Your task to perform on an android device: search for starred emails in the gmail app Image 0: 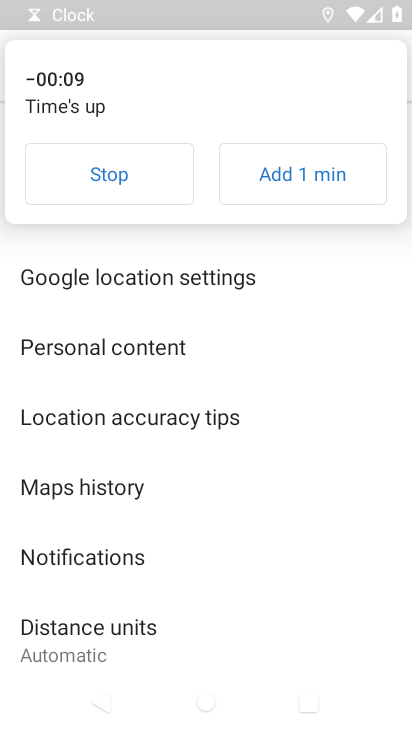
Step 0: click (111, 199)
Your task to perform on an android device: search for starred emails in the gmail app Image 1: 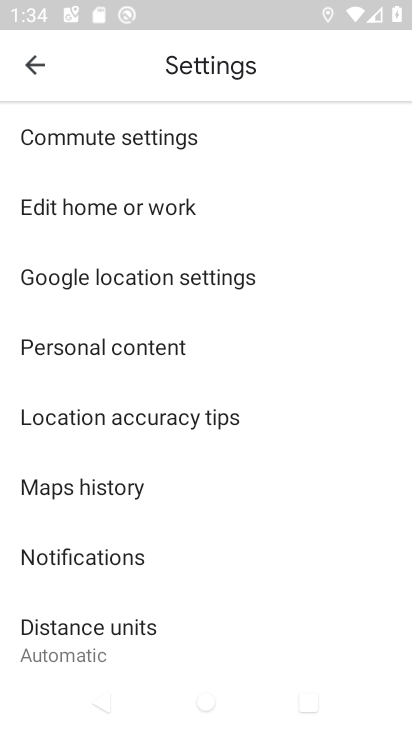
Step 1: press home button
Your task to perform on an android device: search for starred emails in the gmail app Image 2: 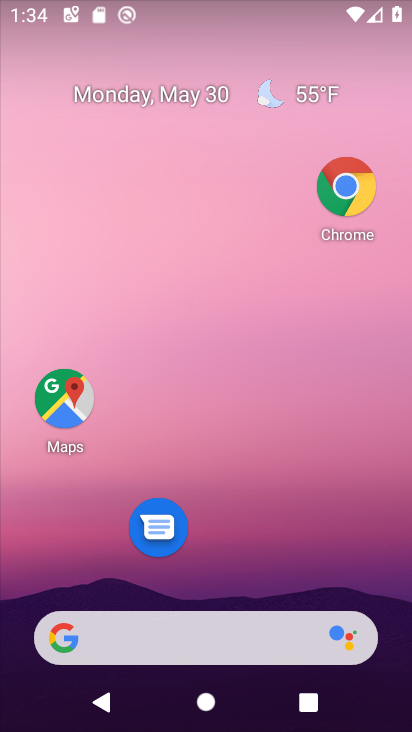
Step 2: drag from (200, 557) to (214, 9)
Your task to perform on an android device: search for starred emails in the gmail app Image 3: 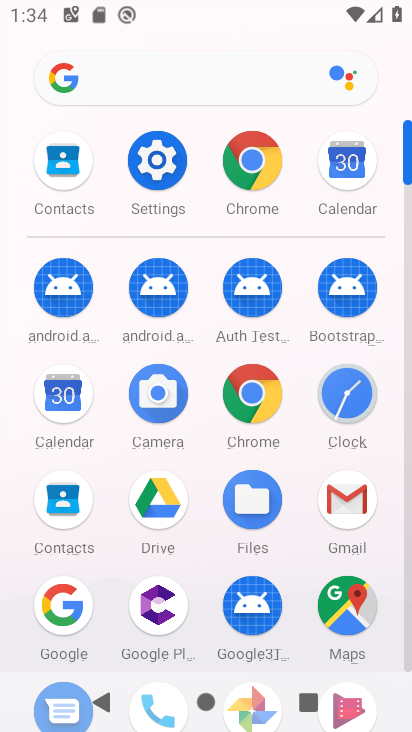
Step 3: click (343, 495)
Your task to perform on an android device: search for starred emails in the gmail app Image 4: 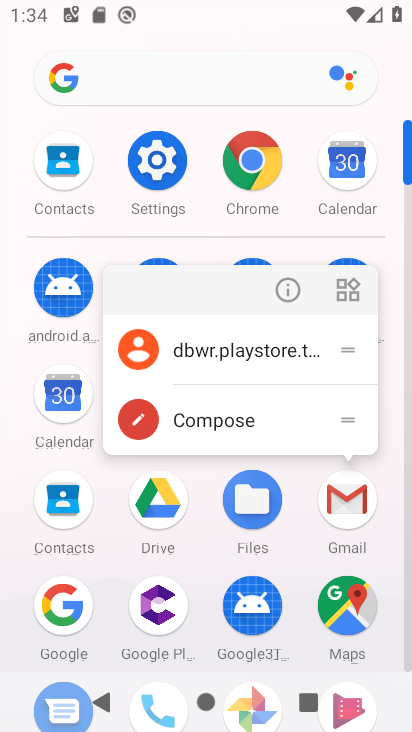
Step 4: click (286, 298)
Your task to perform on an android device: search for starred emails in the gmail app Image 5: 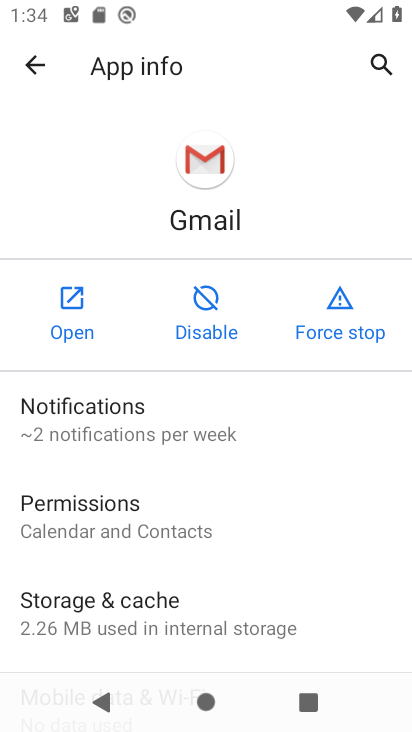
Step 5: click (86, 311)
Your task to perform on an android device: search for starred emails in the gmail app Image 6: 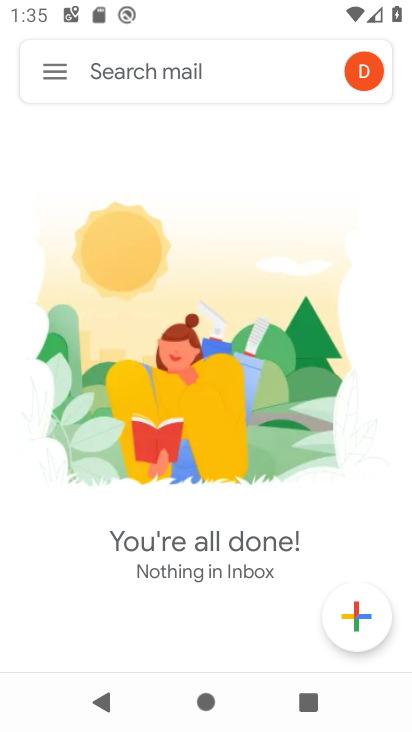
Step 6: click (48, 69)
Your task to perform on an android device: search for starred emails in the gmail app Image 7: 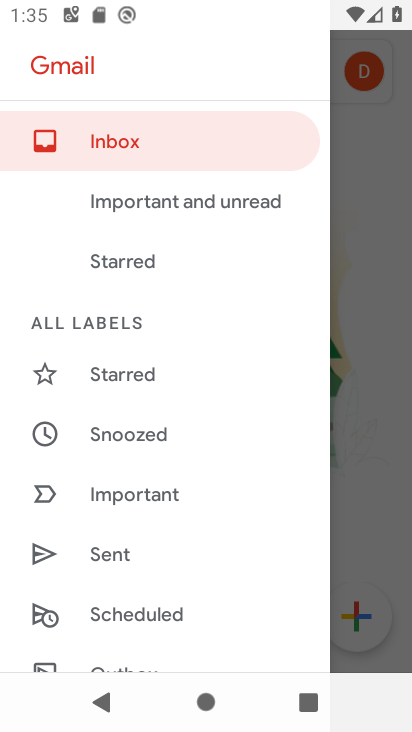
Step 7: click (139, 359)
Your task to perform on an android device: search for starred emails in the gmail app Image 8: 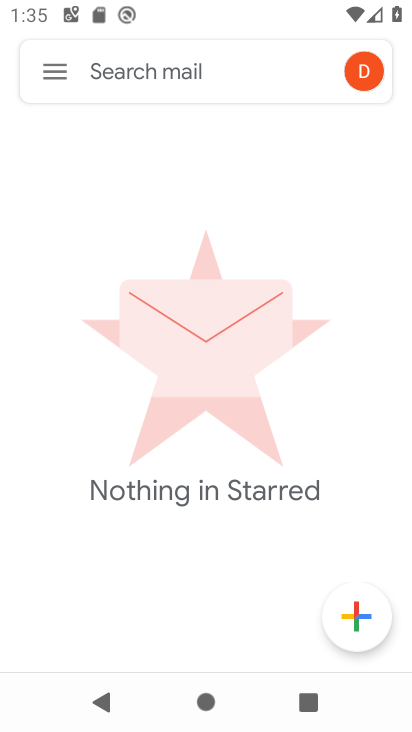
Step 8: task complete